Your task to perform on an android device: install app "VLC for Android" Image 0: 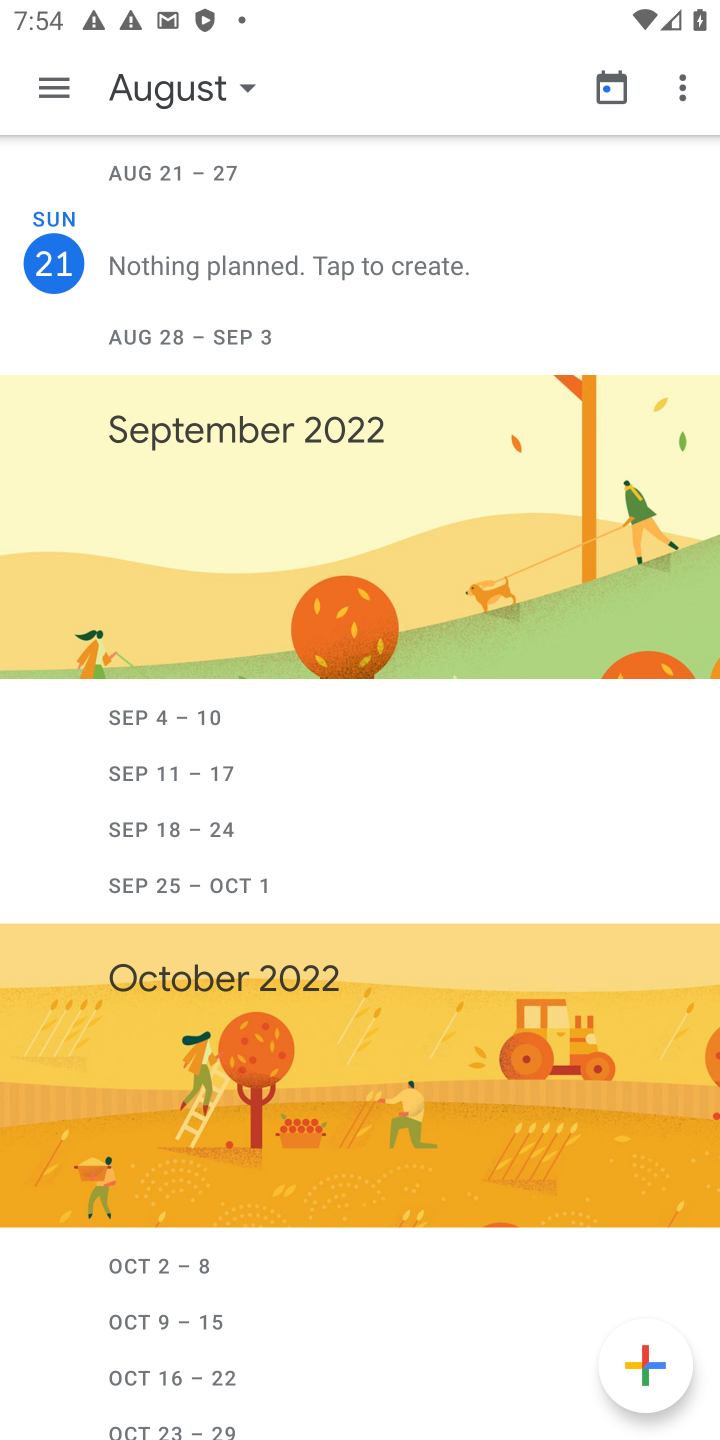
Step 0: press home button
Your task to perform on an android device: install app "VLC for Android" Image 1: 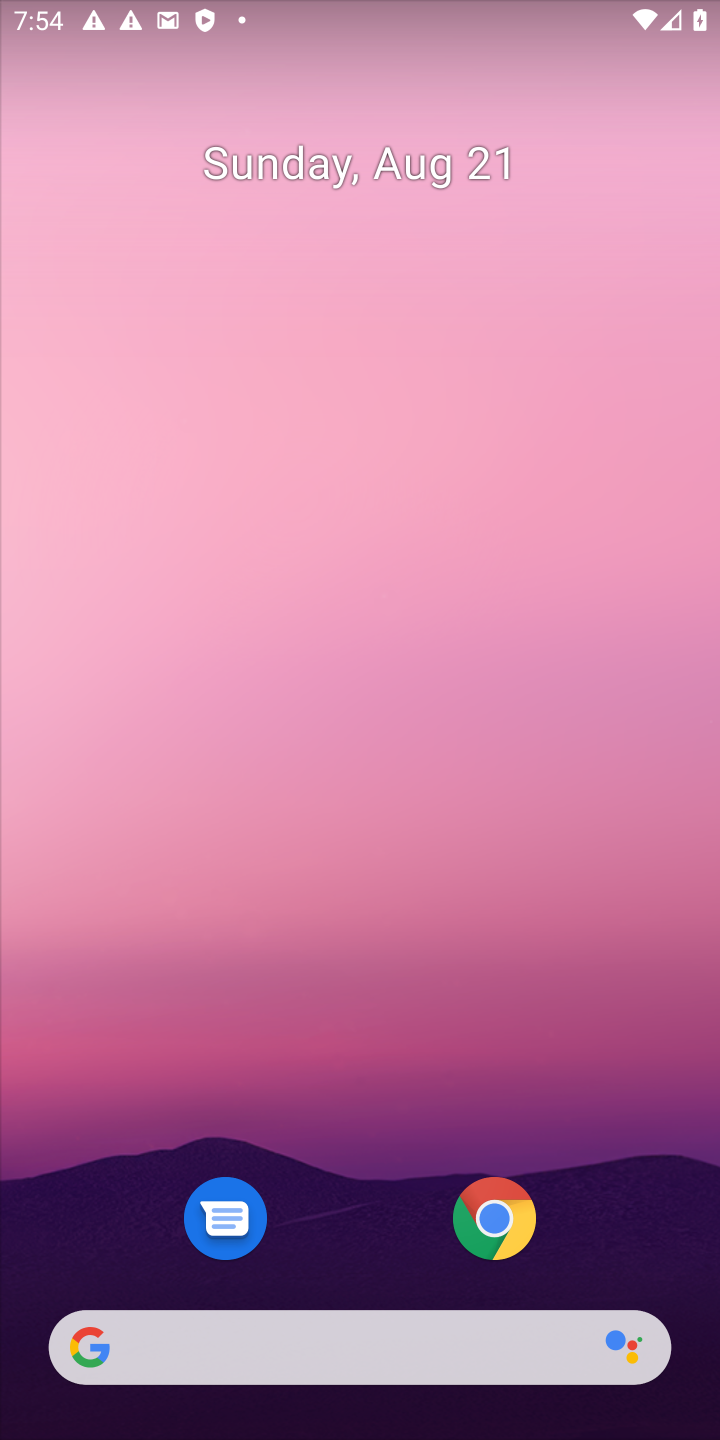
Step 1: drag from (473, 1039) to (457, 255)
Your task to perform on an android device: install app "VLC for Android" Image 2: 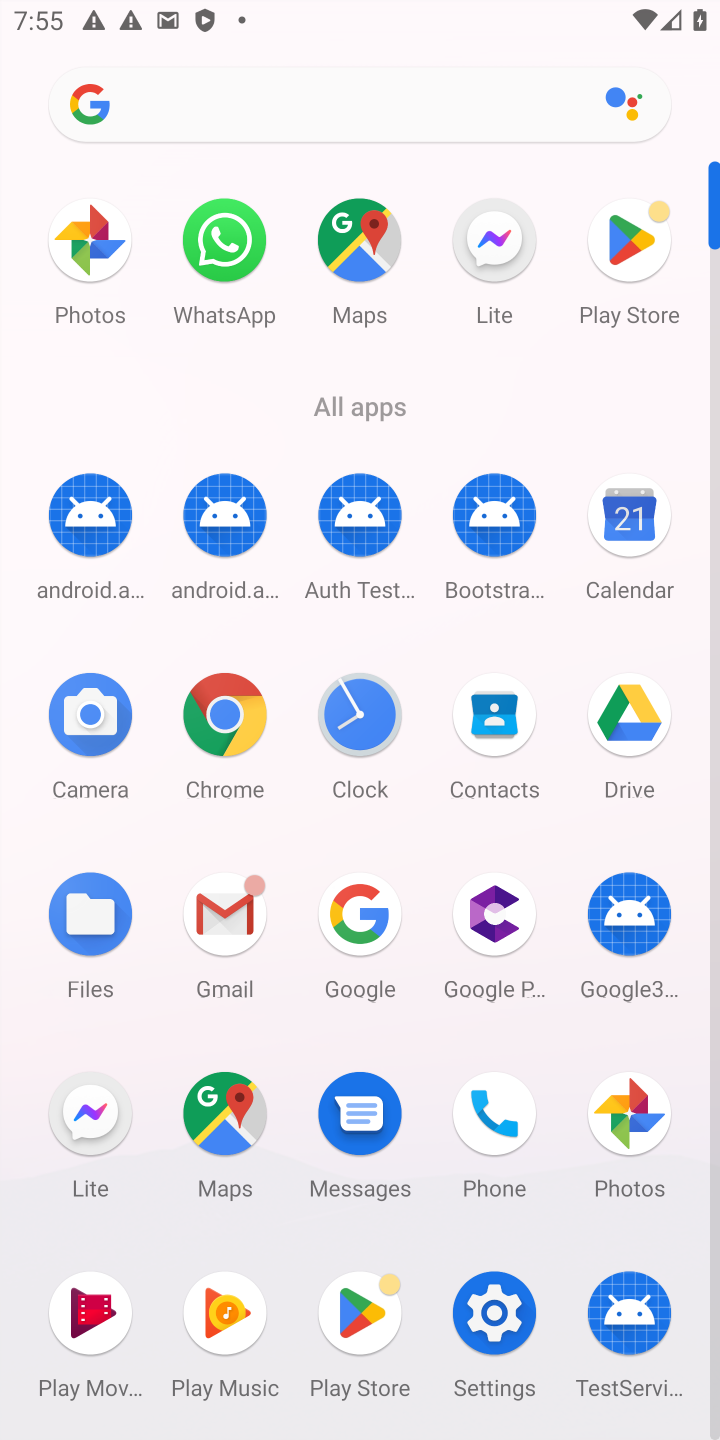
Step 2: drag from (489, 718) to (609, 200)
Your task to perform on an android device: install app "VLC for Android" Image 3: 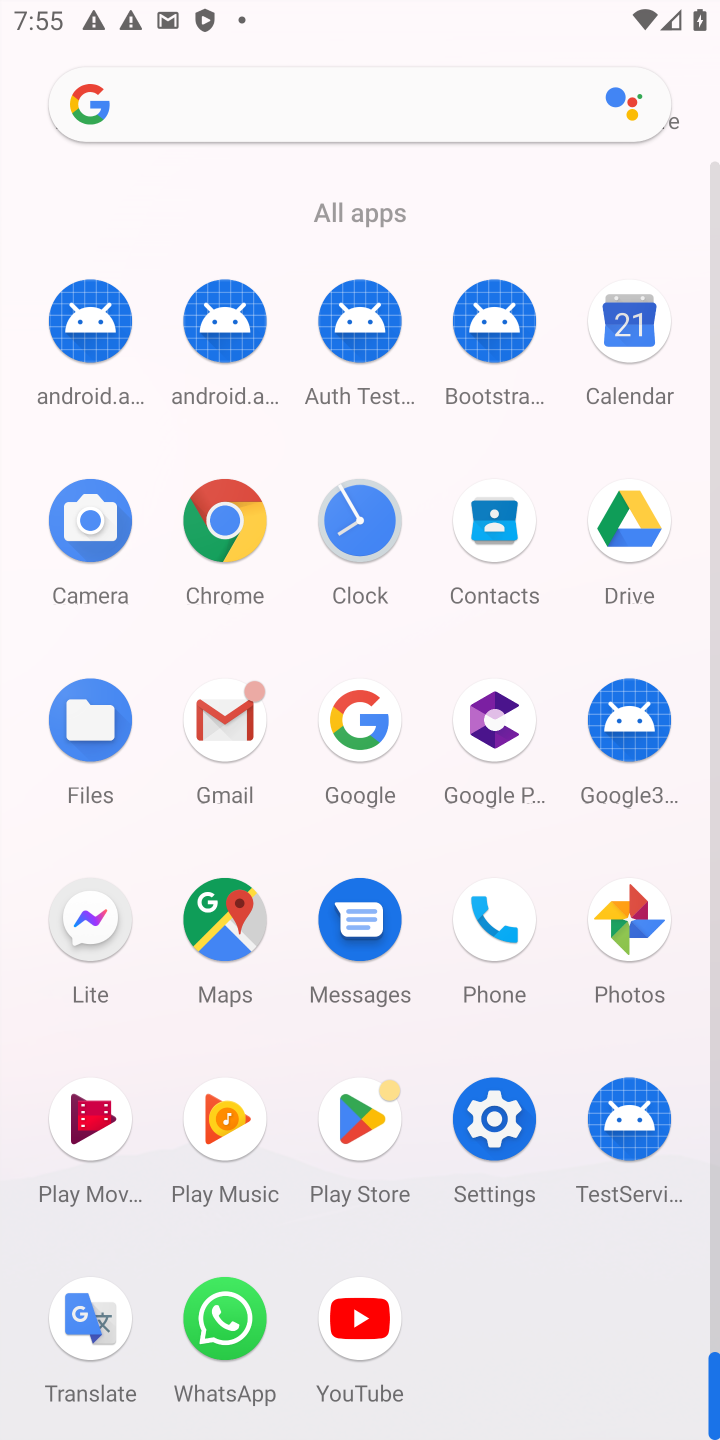
Step 3: click (402, 1117)
Your task to perform on an android device: install app "VLC for Android" Image 4: 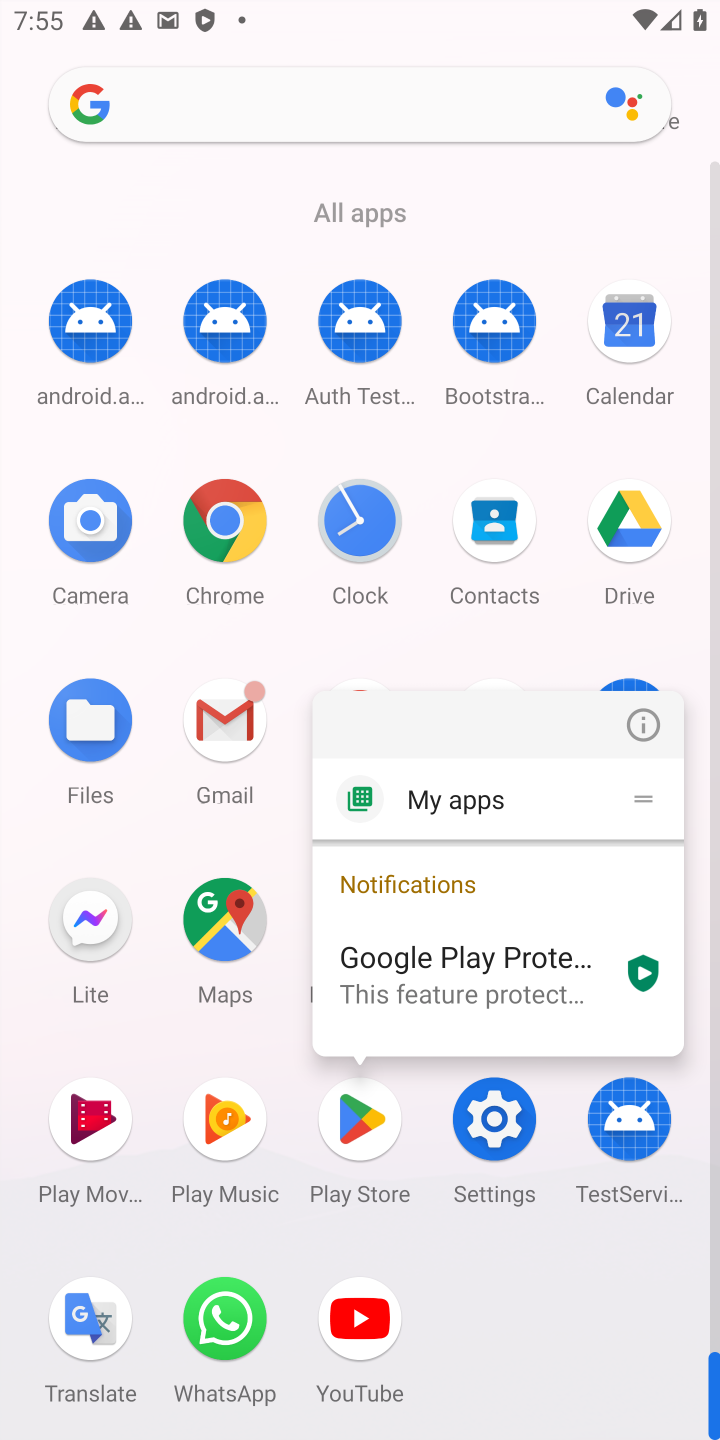
Step 4: click (403, 1139)
Your task to perform on an android device: install app "VLC for Android" Image 5: 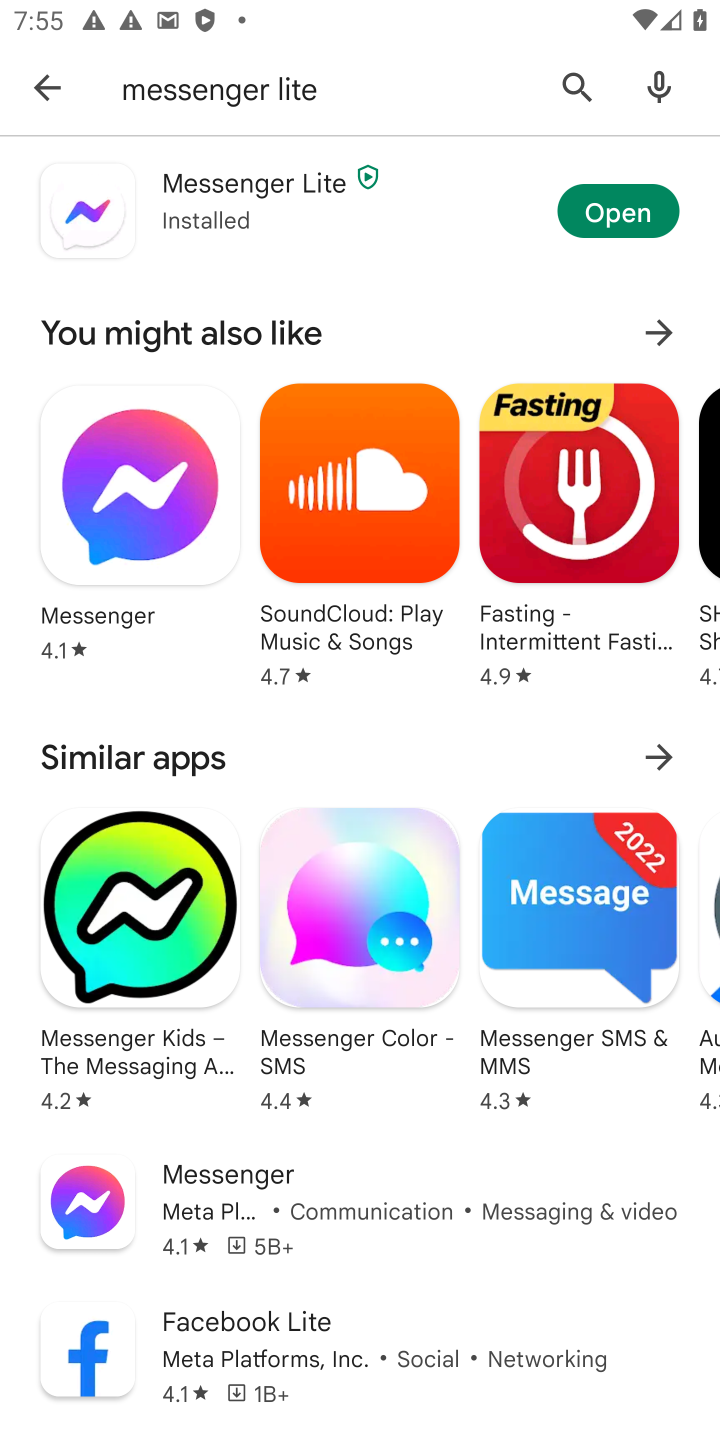
Step 5: click (40, 86)
Your task to perform on an android device: install app "VLC for Android" Image 6: 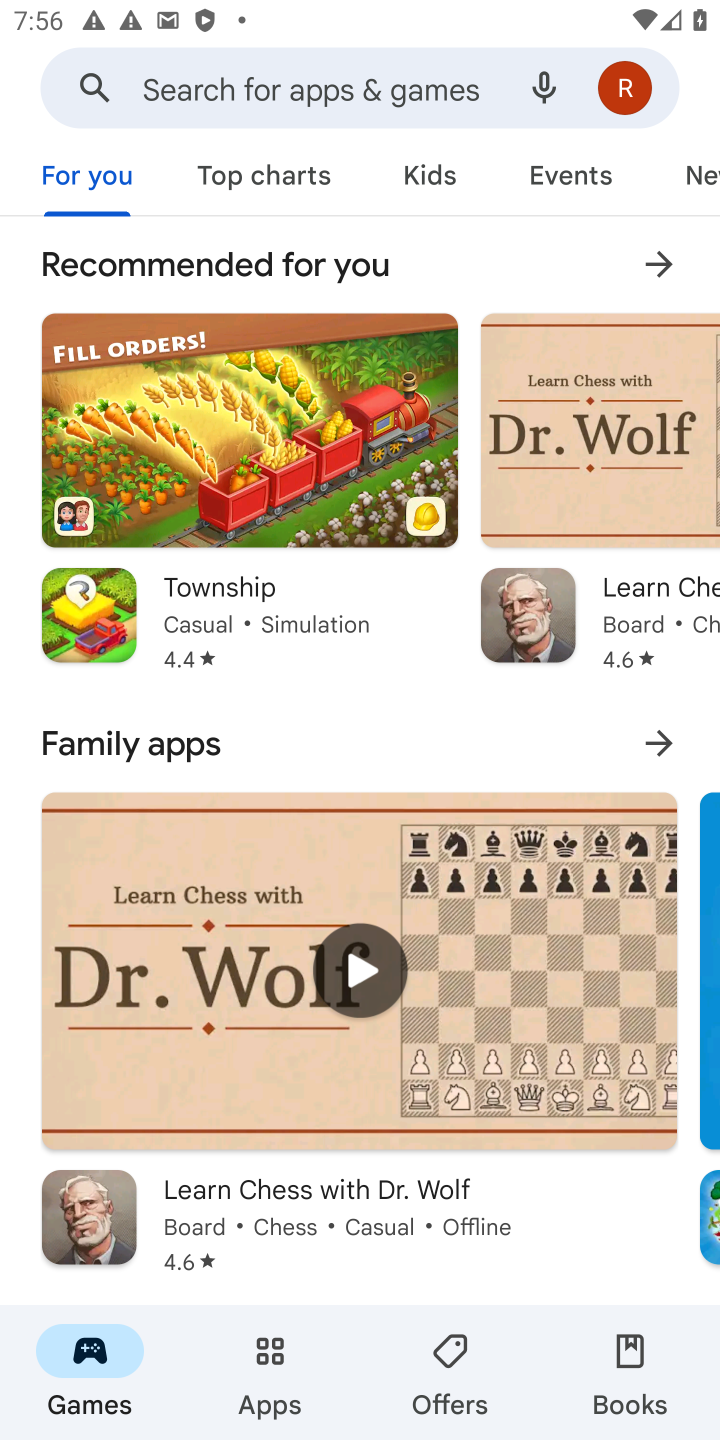
Step 6: click (290, 99)
Your task to perform on an android device: install app "VLC for Android" Image 7: 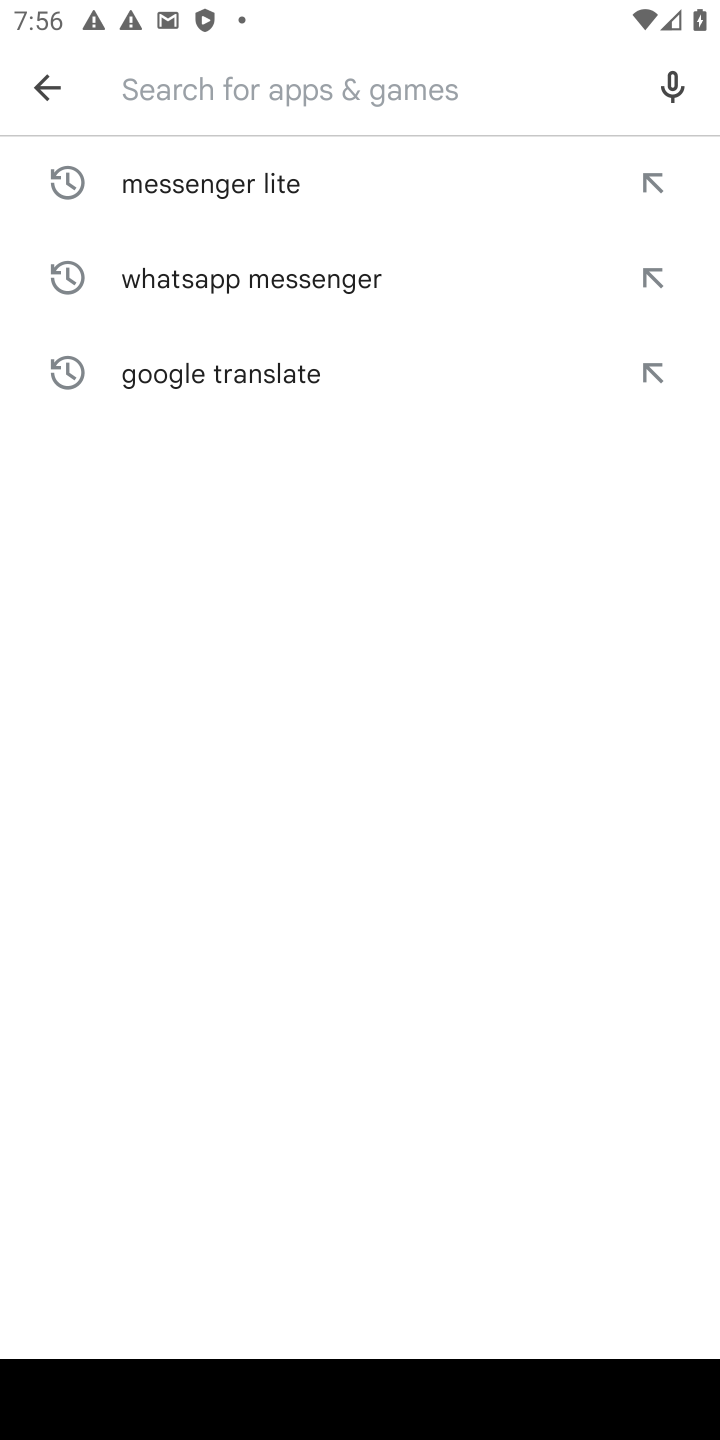
Step 7: type "VLC for Android"
Your task to perform on an android device: install app "VLC for Android" Image 8: 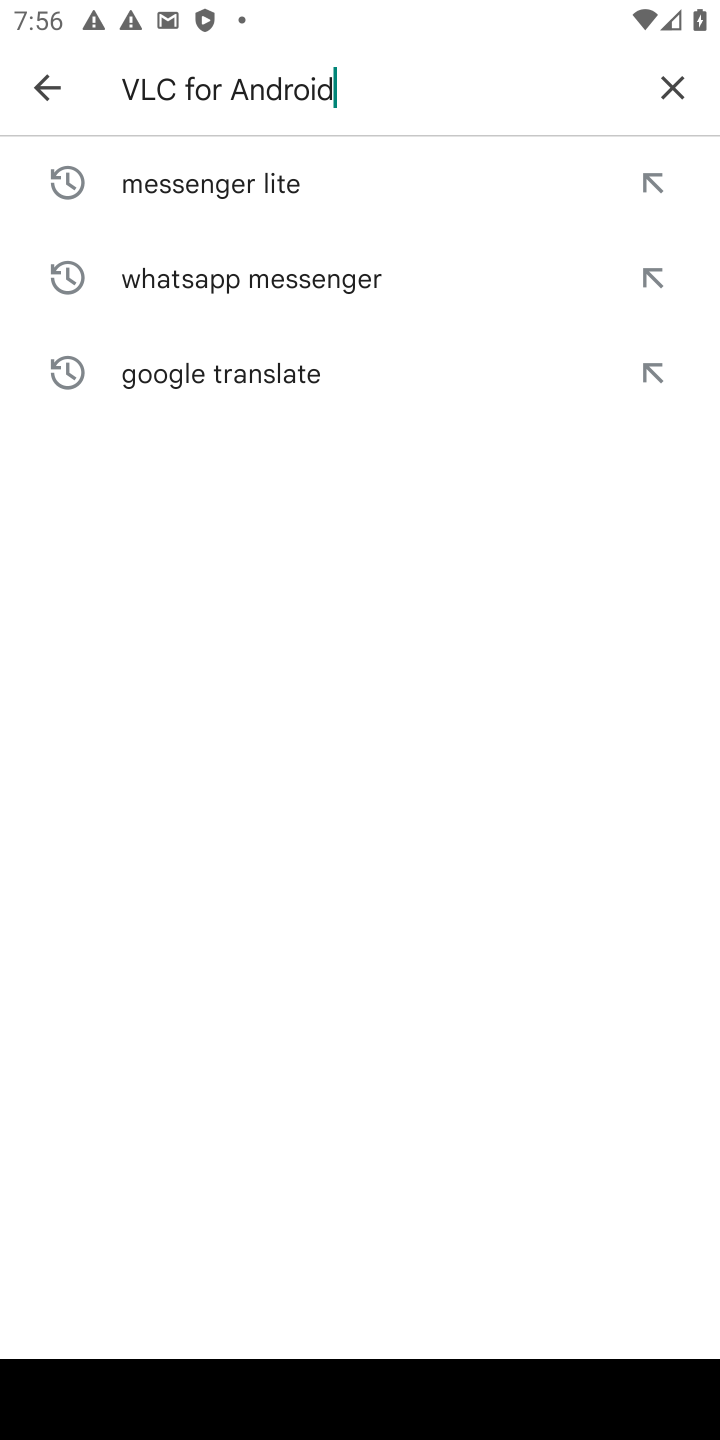
Step 8: type ""
Your task to perform on an android device: install app "VLC for Android" Image 9: 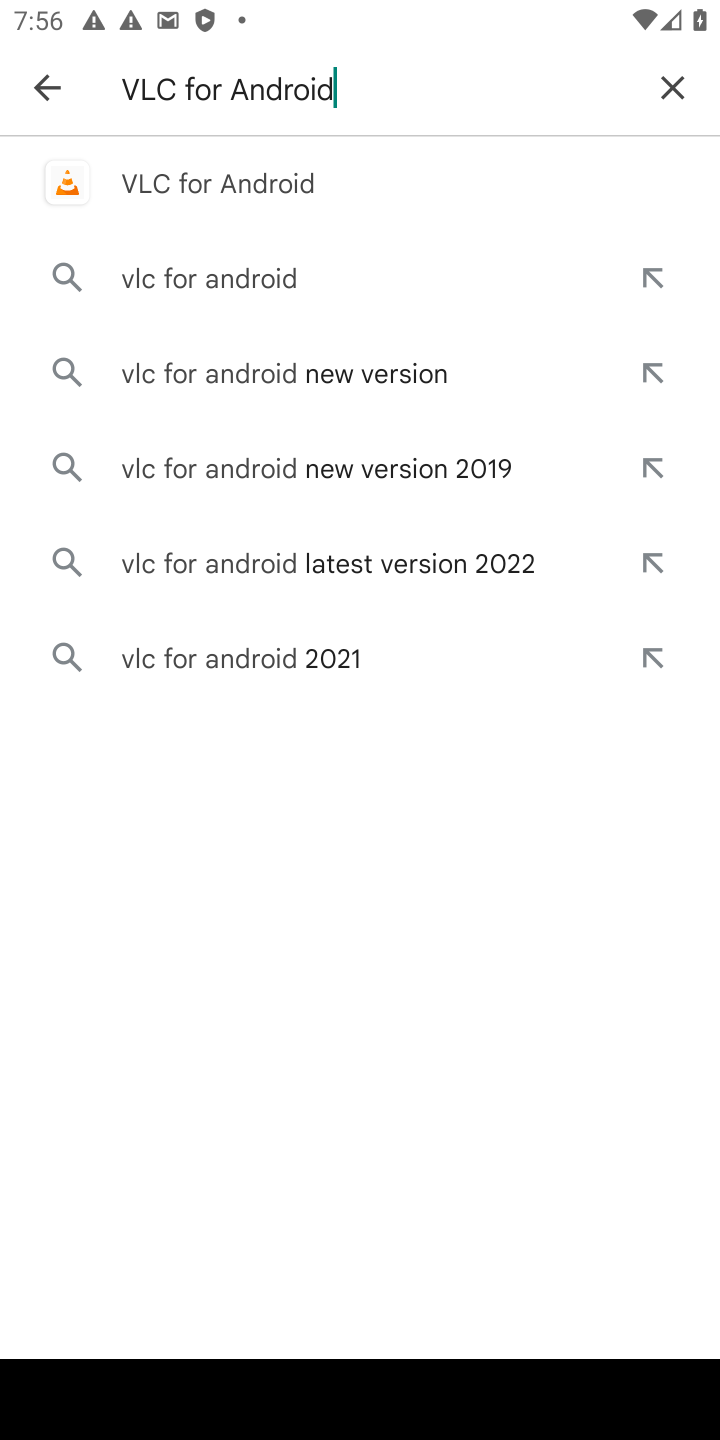
Step 9: click (372, 180)
Your task to perform on an android device: install app "VLC for Android" Image 10: 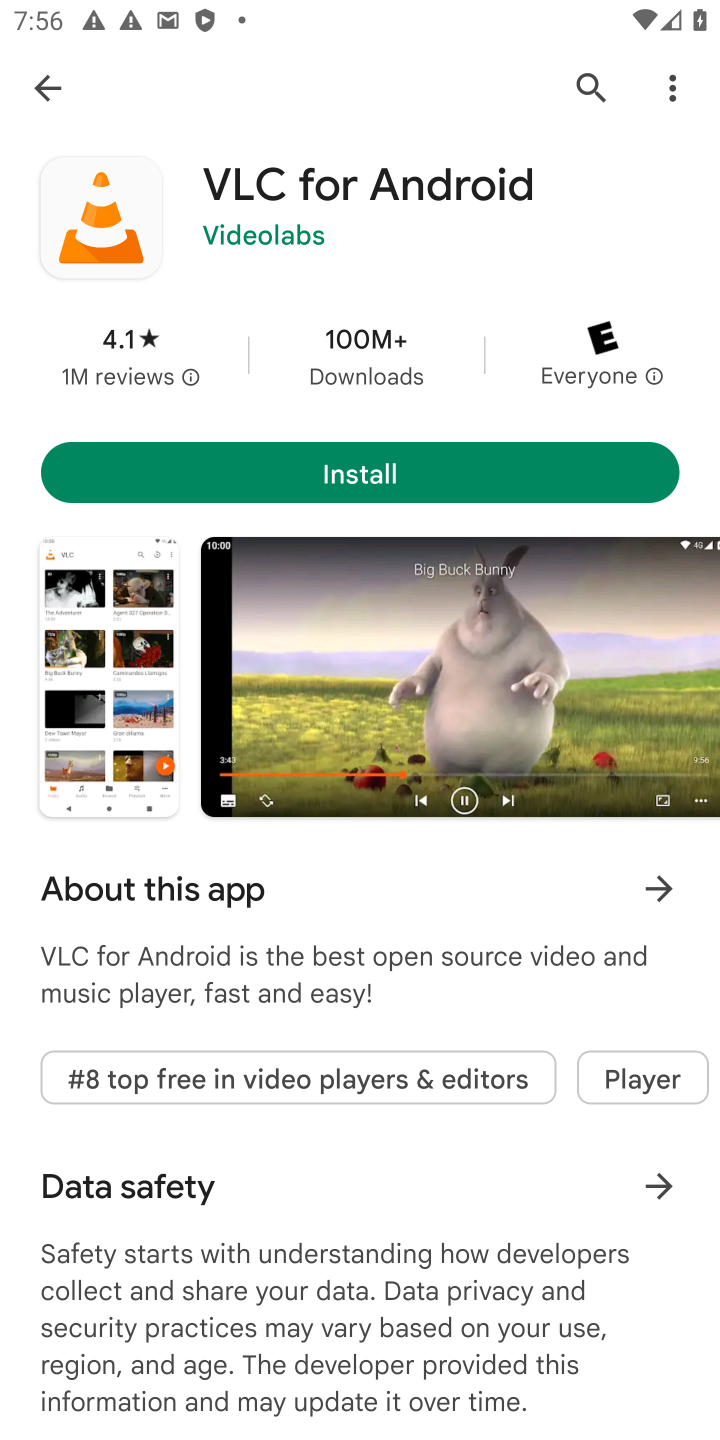
Step 10: click (342, 478)
Your task to perform on an android device: install app "VLC for Android" Image 11: 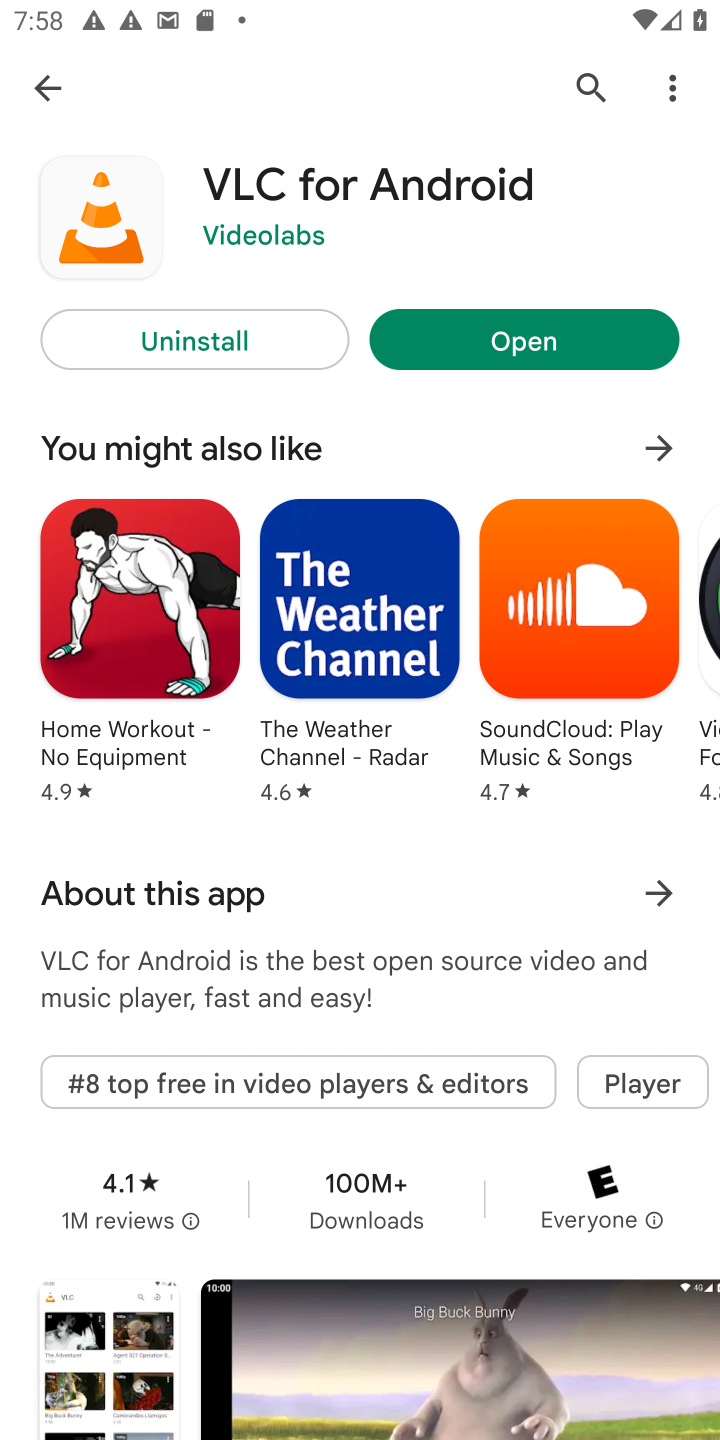
Step 11: task complete